Your task to perform on an android device: allow notifications from all sites in the chrome app Image 0: 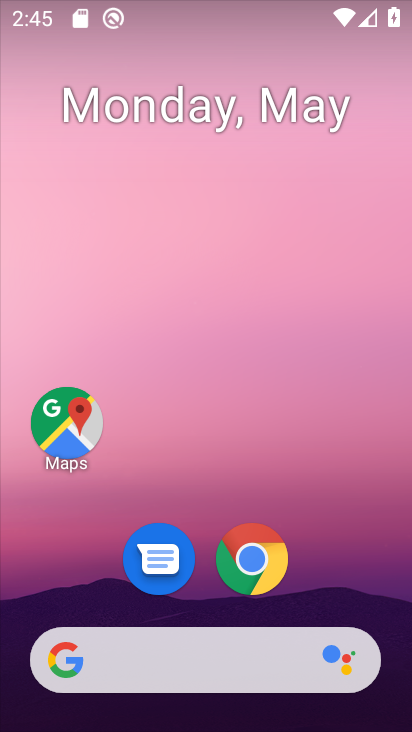
Step 0: drag from (307, 545) to (270, 260)
Your task to perform on an android device: allow notifications from all sites in the chrome app Image 1: 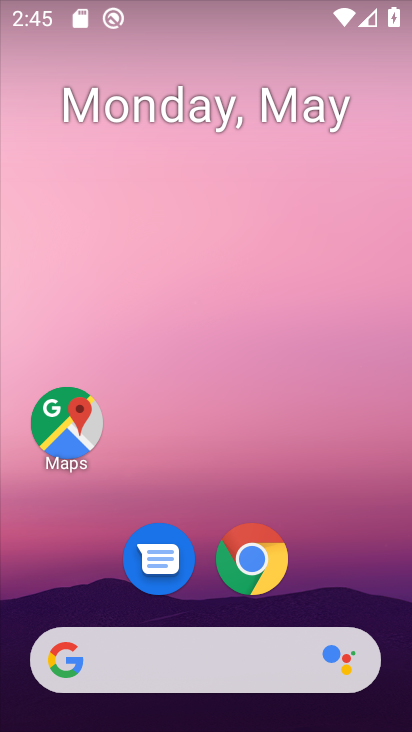
Step 1: drag from (325, 590) to (329, 116)
Your task to perform on an android device: allow notifications from all sites in the chrome app Image 2: 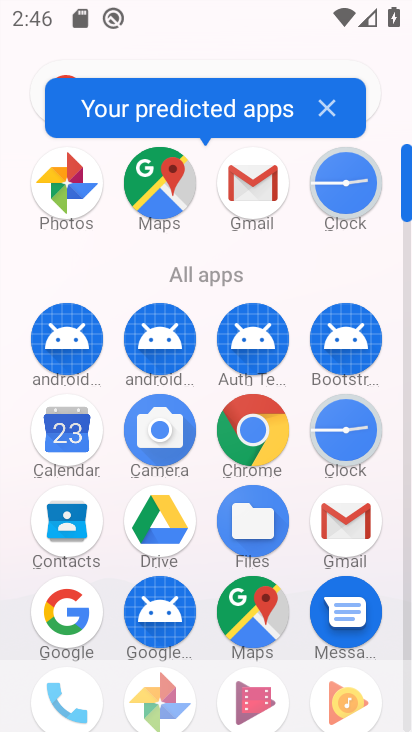
Step 2: click (245, 460)
Your task to perform on an android device: allow notifications from all sites in the chrome app Image 3: 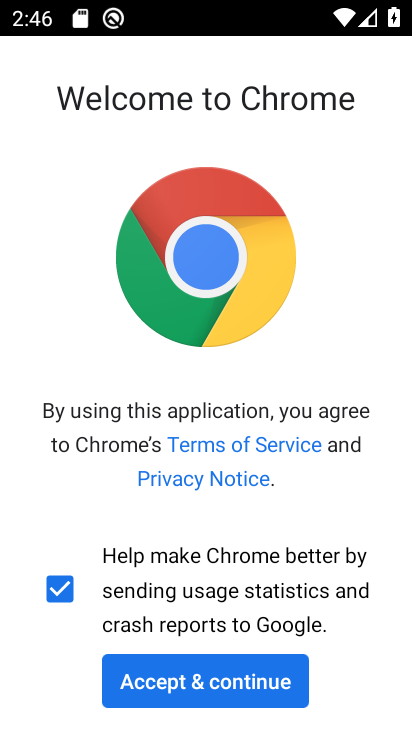
Step 3: click (190, 695)
Your task to perform on an android device: allow notifications from all sites in the chrome app Image 4: 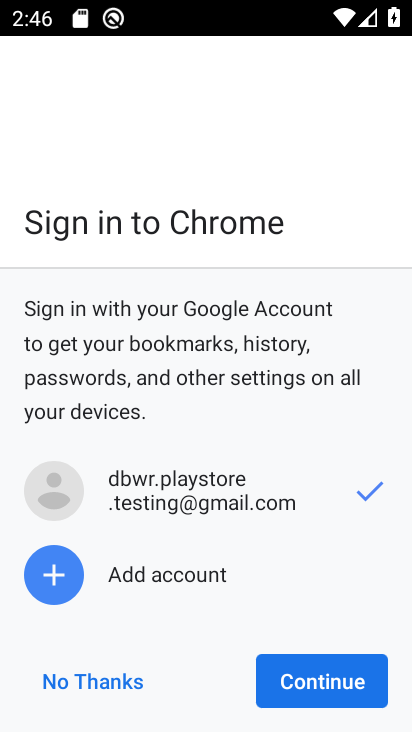
Step 4: click (315, 689)
Your task to perform on an android device: allow notifications from all sites in the chrome app Image 5: 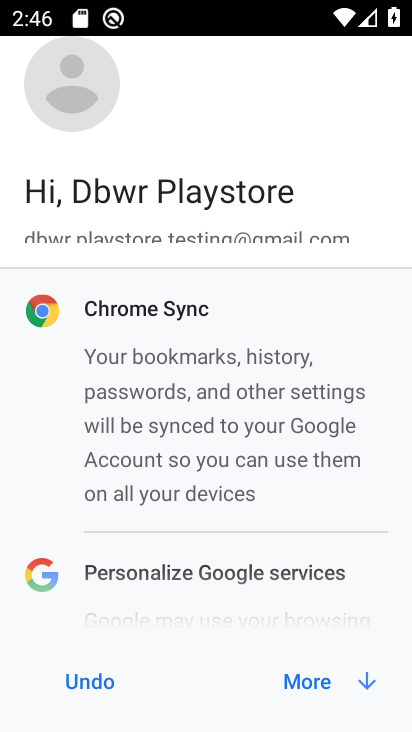
Step 5: click (318, 685)
Your task to perform on an android device: allow notifications from all sites in the chrome app Image 6: 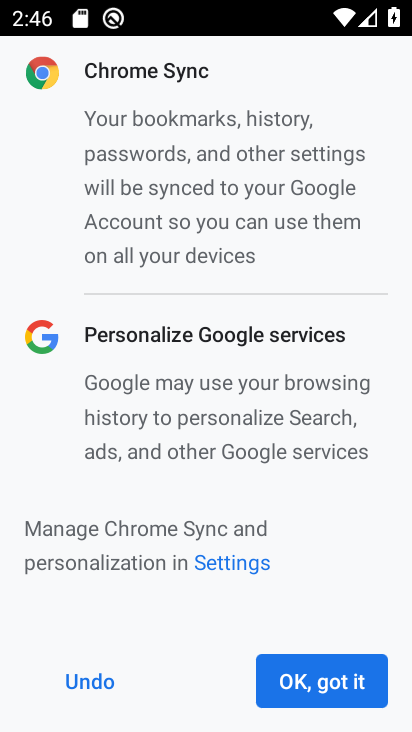
Step 6: click (318, 685)
Your task to perform on an android device: allow notifications from all sites in the chrome app Image 7: 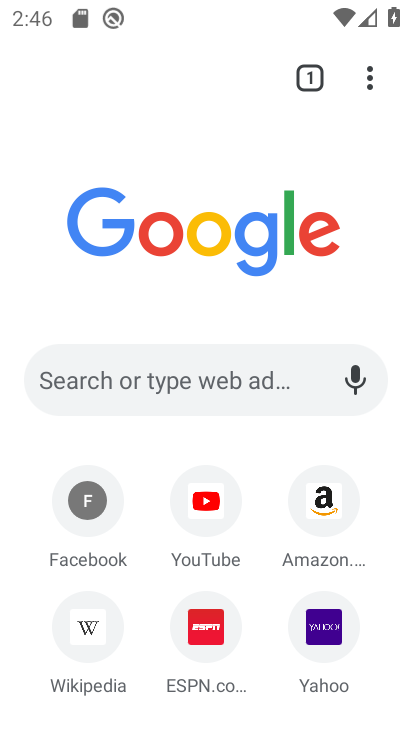
Step 7: click (367, 65)
Your task to perform on an android device: allow notifications from all sites in the chrome app Image 8: 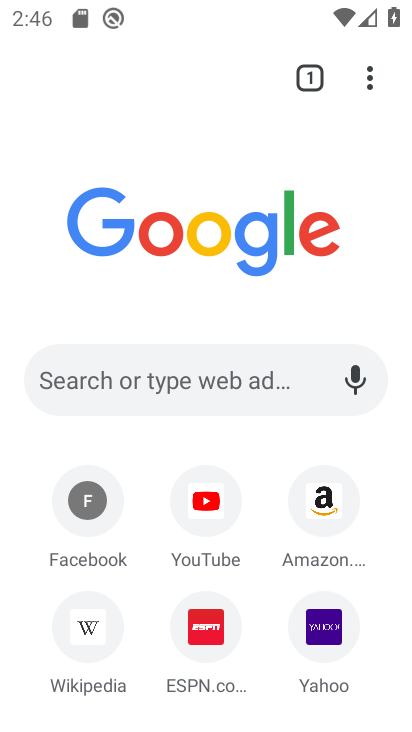
Step 8: click (371, 80)
Your task to perform on an android device: allow notifications from all sites in the chrome app Image 9: 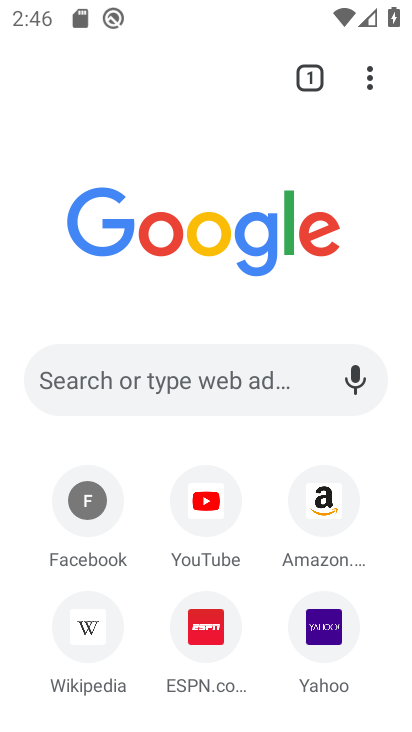
Step 9: click (370, 79)
Your task to perform on an android device: allow notifications from all sites in the chrome app Image 10: 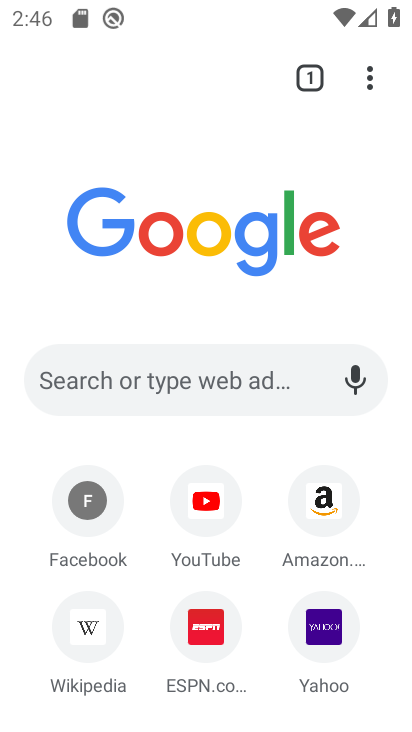
Step 10: click (374, 82)
Your task to perform on an android device: allow notifications from all sites in the chrome app Image 11: 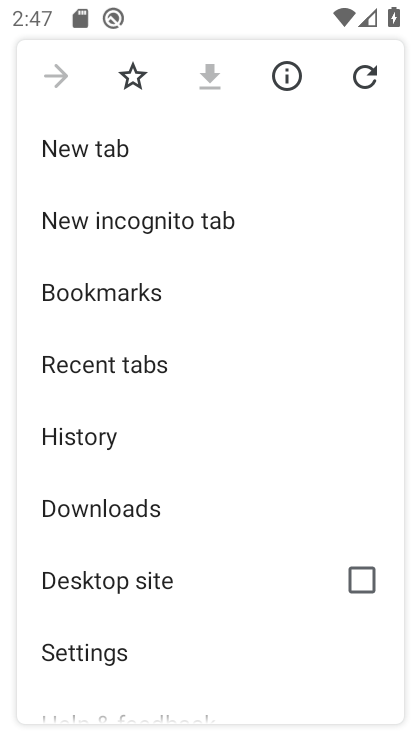
Step 11: click (106, 653)
Your task to perform on an android device: allow notifications from all sites in the chrome app Image 12: 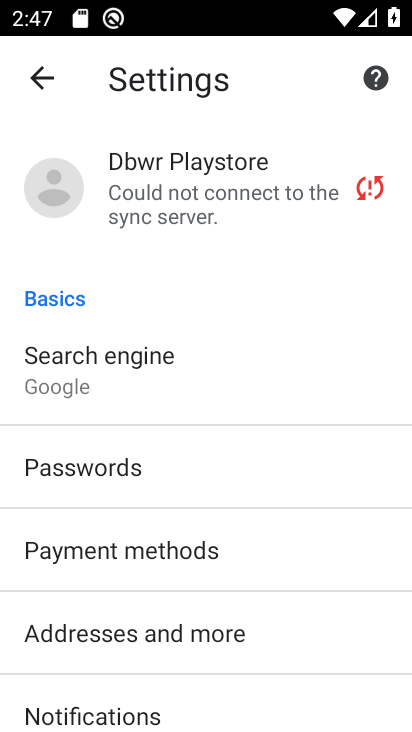
Step 12: drag from (151, 658) to (195, 308)
Your task to perform on an android device: allow notifications from all sites in the chrome app Image 13: 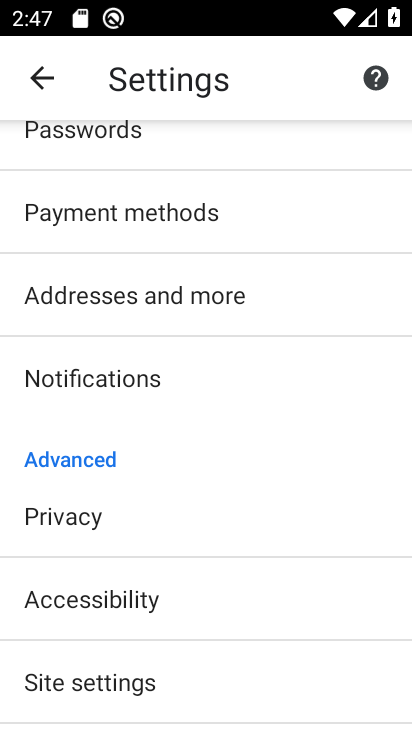
Step 13: drag from (143, 681) to (182, 375)
Your task to perform on an android device: allow notifications from all sites in the chrome app Image 14: 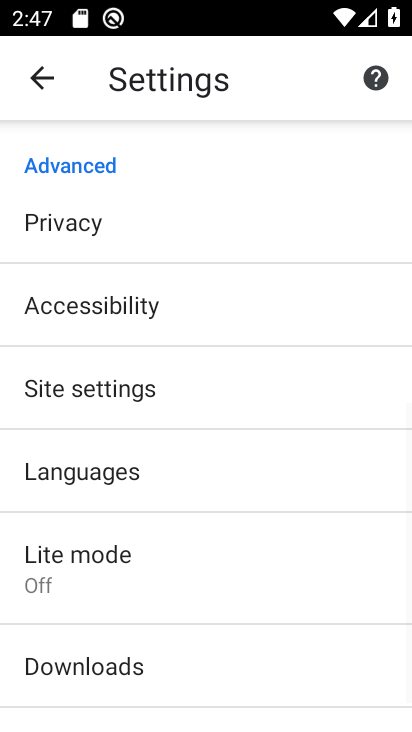
Step 14: click (133, 387)
Your task to perform on an android device: allow notifications from all sites in the chrome app Image 15: 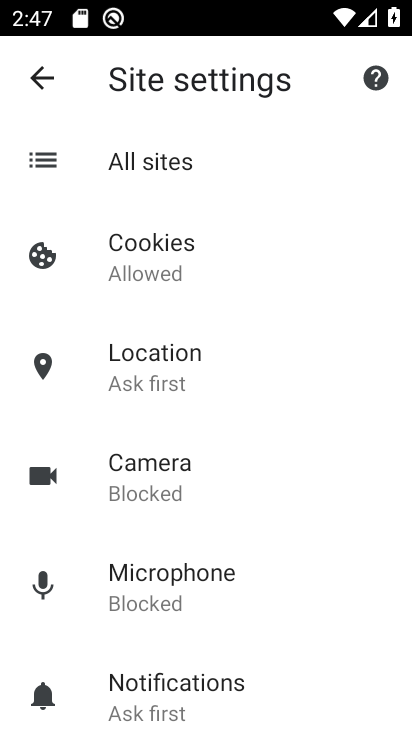
Step 15: drag from (237, 646) to (241, 451)
Your task to perform on an android device: allow notifications from all sites in the chrome app Image 16: 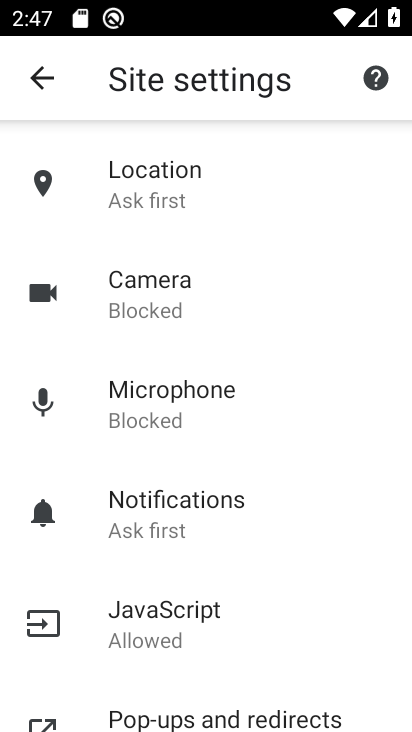
Step 16: click (166, 528)
Your task to perform on an android device: allow notifications from all sites in the chrome app Image 17: 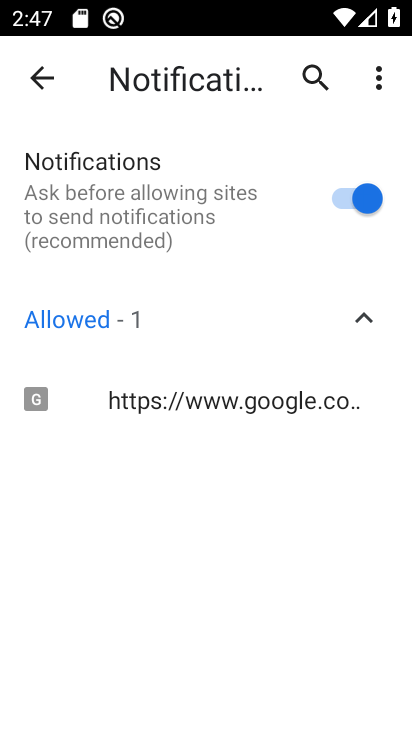
Step 17: task complete